Your task to perform on an android device: Go to ESPN.com Image 0: 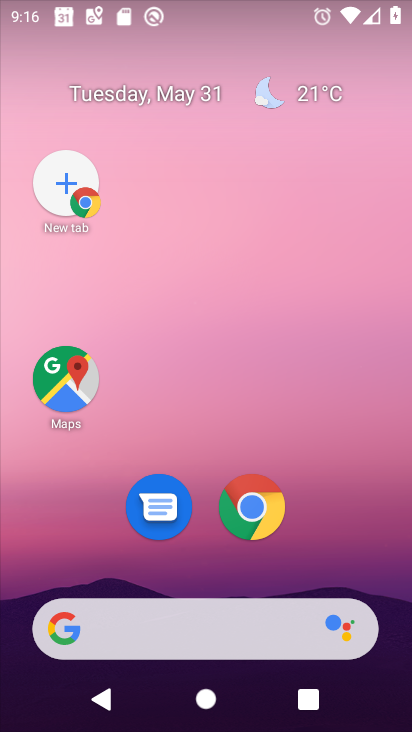
Step 0: drag from (288, 713) to (252, 119)
Your task to perform on an android device: Go to ESPN.com Image 1: 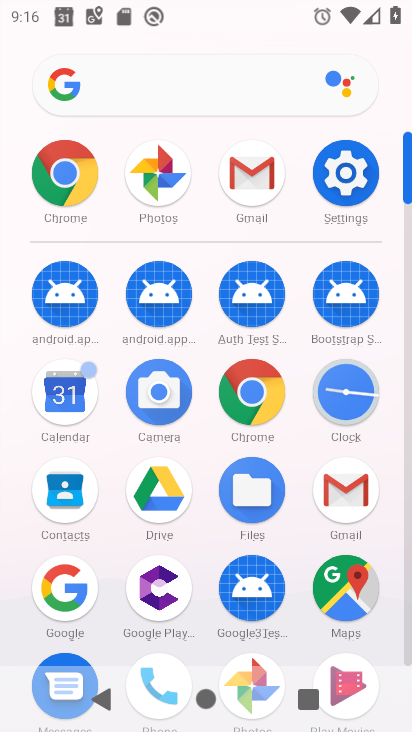
Step 1: click (57, 160)
Your task to perform on an android device: Go to ESPN.com Image 2: 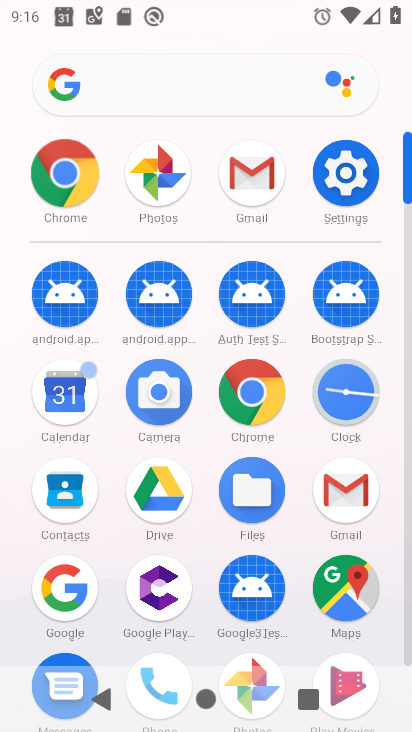
Step 2: click (57, 160)
Your task to perform on an android device: Go to ESPN.com Image 3: 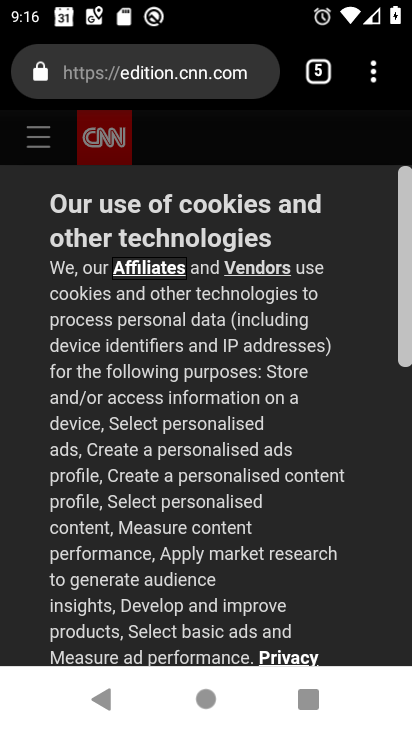
Step 3: drag from (369, 84) to (115, 146)
Your task to perform on an android device: Go to ESPN.com Image 4: 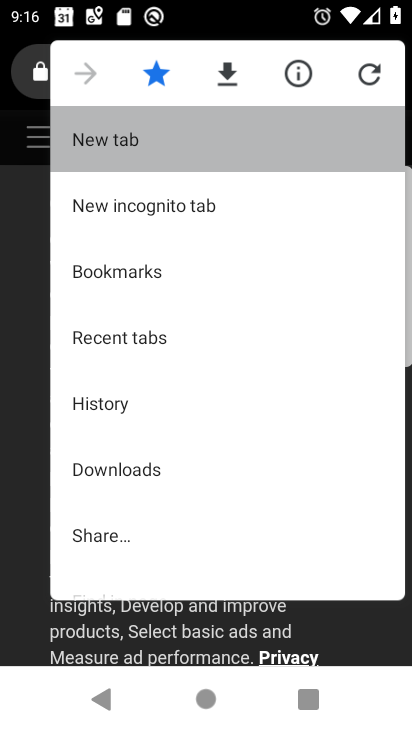
Step 4: click (112, 128)
Your task to perform on an android device: Go to ESPN.com Image 5: 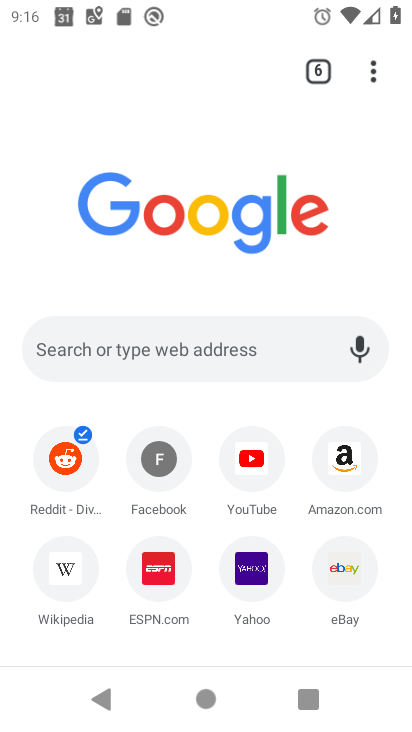
Step 5: click (150, 569)
Your task to perform on an android device: Go to ESPN.com Image 6: 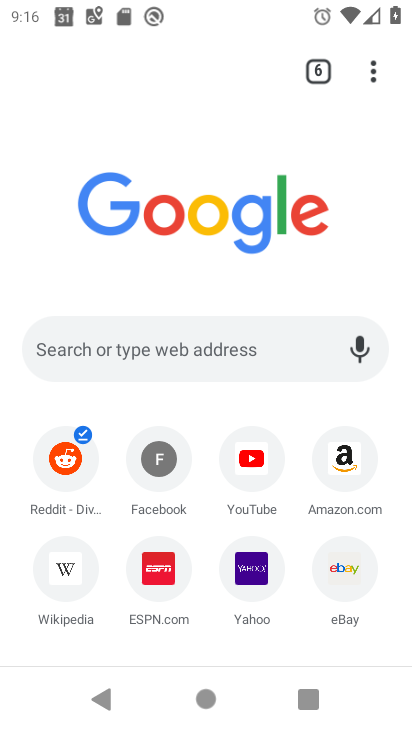
Step 6: click (155, 561)
Your task to perform on an android device: Go to ESPN.com Image 7: 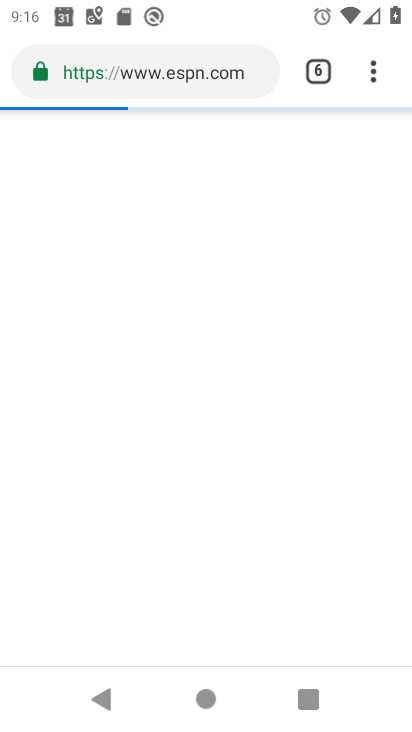
Step 7: click (157, 558)
Your task to perform on an android device: Go to ESPN.com Image 8: 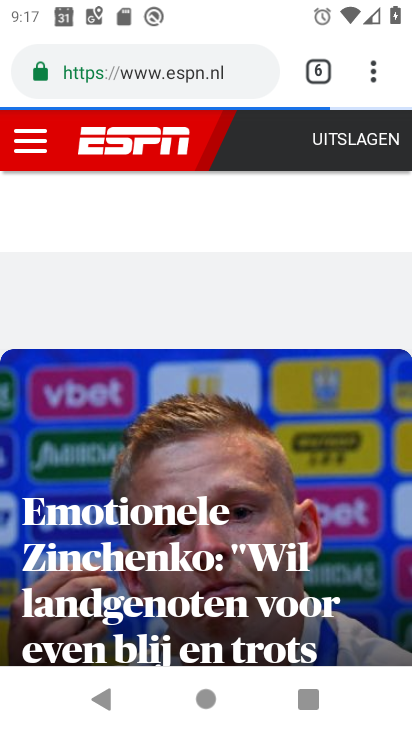
Step 8: task complete